Your task to perform on an android device: Add razer thresher to the cart on costco.com, then select checkout. Image 0: 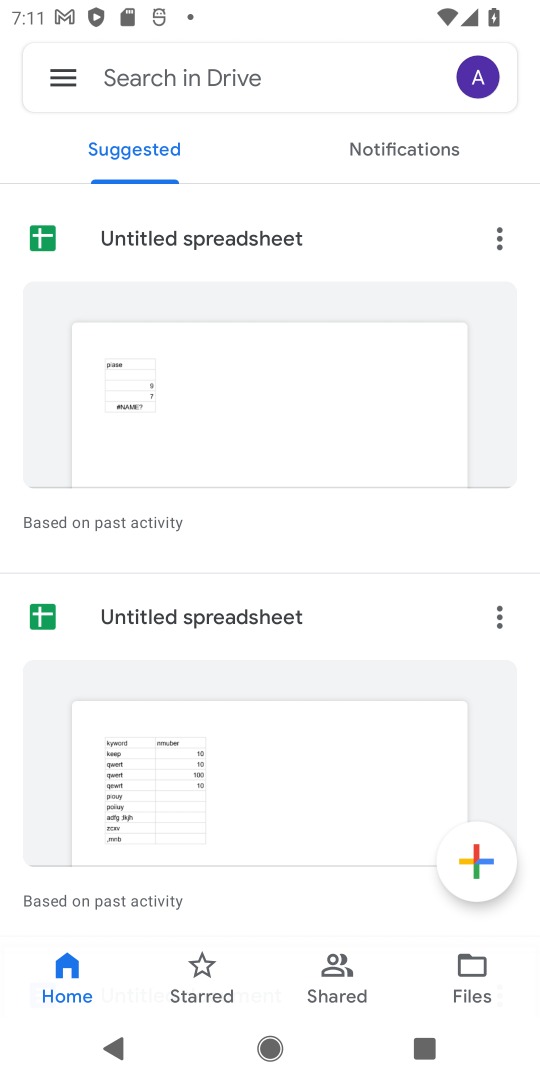
Step 0: press home button
Your task to perform on an android device: Add razer thresher to the cart on costco.com, then select checkout. Image 1: 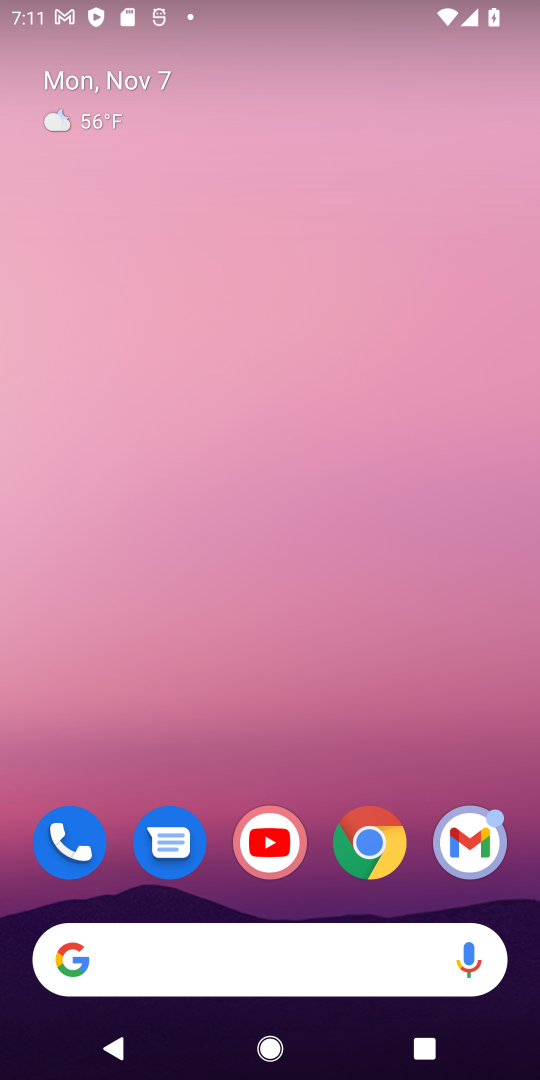
Step 1: click (370, 843)
Your task to perform on an android device: Add razer thresher to the cart on costco.com, then select checkout. Image 2: 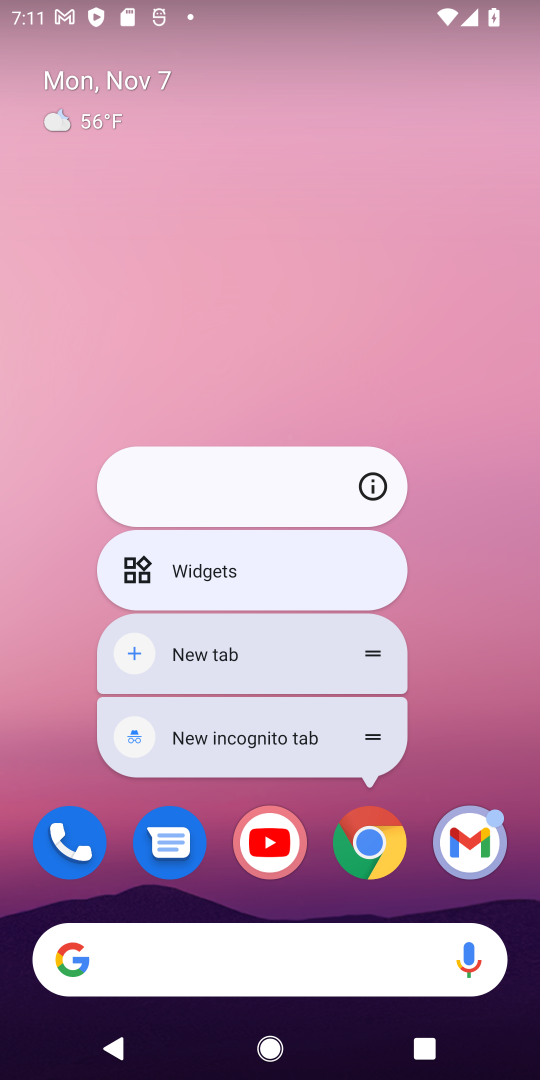
Step 2: click (373, 846)
Your task to perform on an android device: Add razer thresher to the cart on costco.com, then select checkout. Image 3: 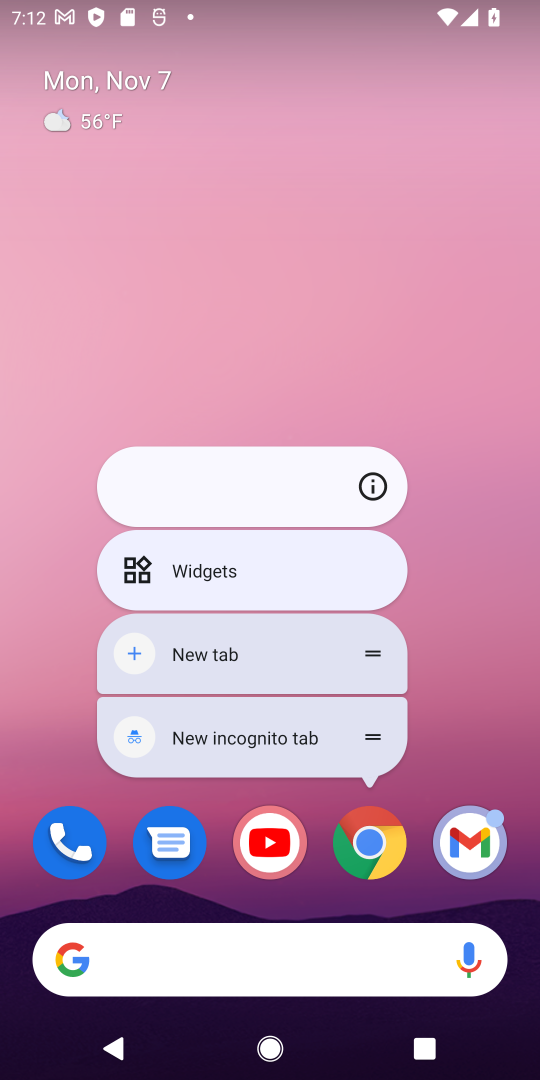
Step 3: click (370, 850)
Your task to perform on an android device: Add razer thresher to the cart on costco.com, then select checkout. Image 4: 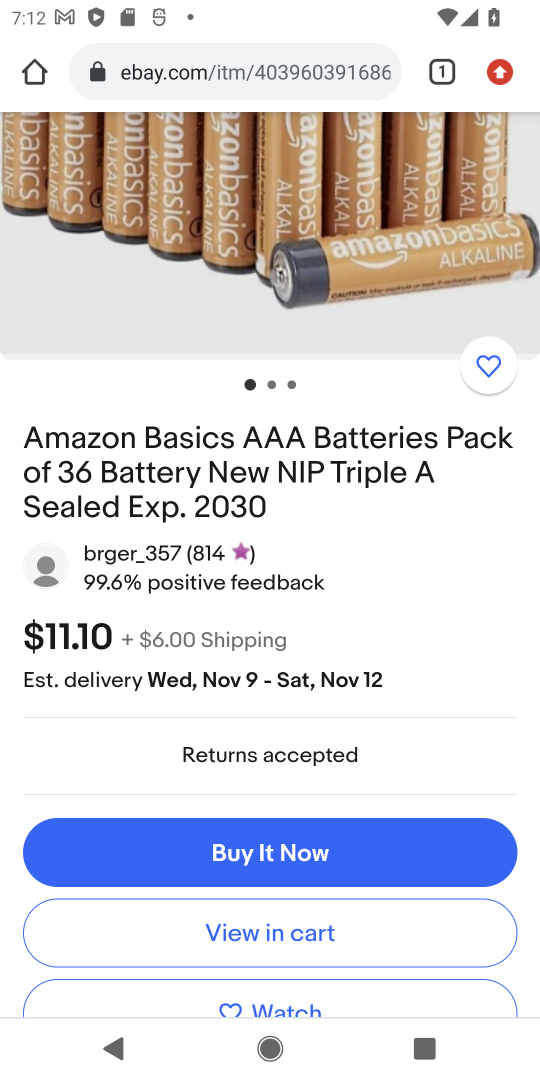
Step 4: click (321, 79)
Your task to perform on an android device: Add razer thresher to the cart on costco.com, then select checkout. Image 5: 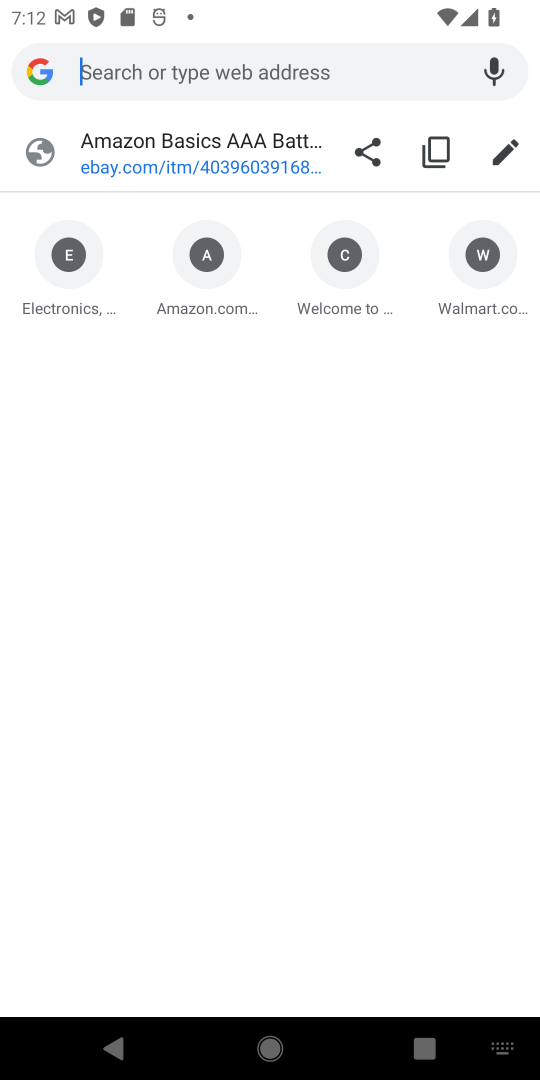
Step 5: click (345, 56)
Your task to perform on an android device: Add razer thresher to the cart on costco.com, then select checkout. Image 6: 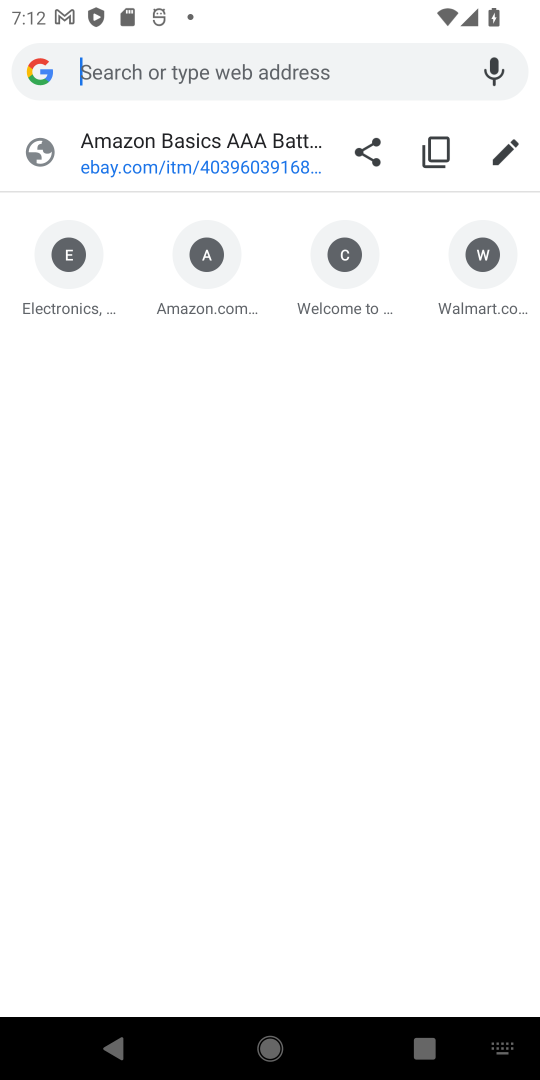
Step 6: type " costco"
Your task to perform on an android device: Add razer thresher to the cart on costco.com, then select checkout. Image 7: 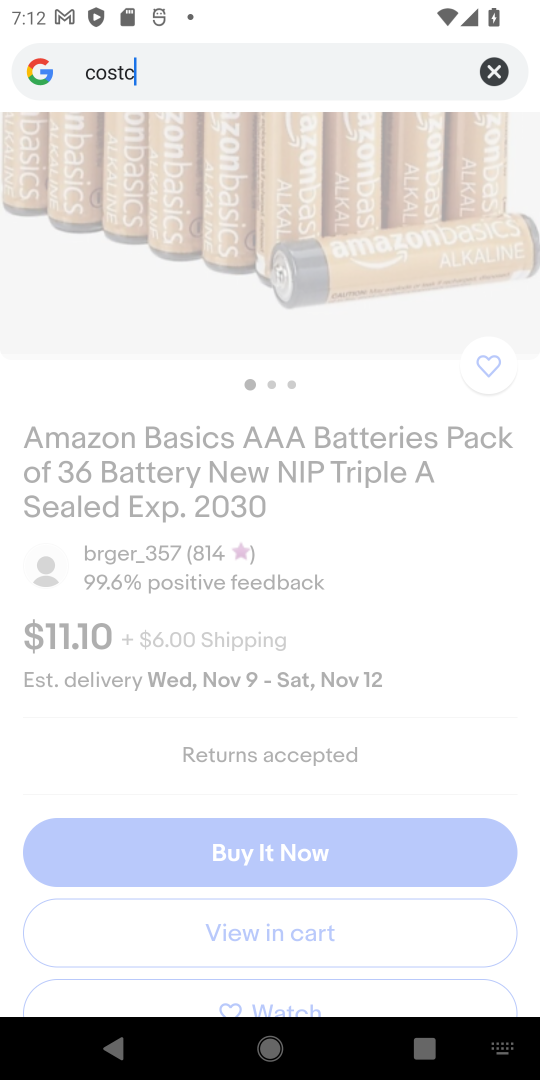
Step 7: press enter
Your task to perform on an android device: Add razer thresher to the cart on costco.com, then select checkout. Image 8: 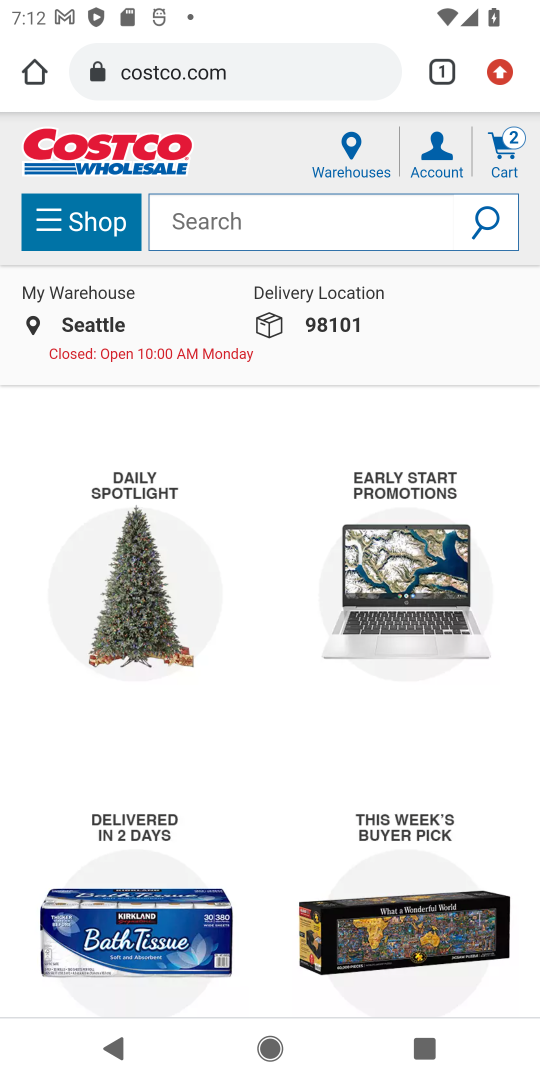
Step 8: click (316, 229)
Your task to perform on an android device: Add razer thresher to the cart on costco.com, then select checkout. Image 9: 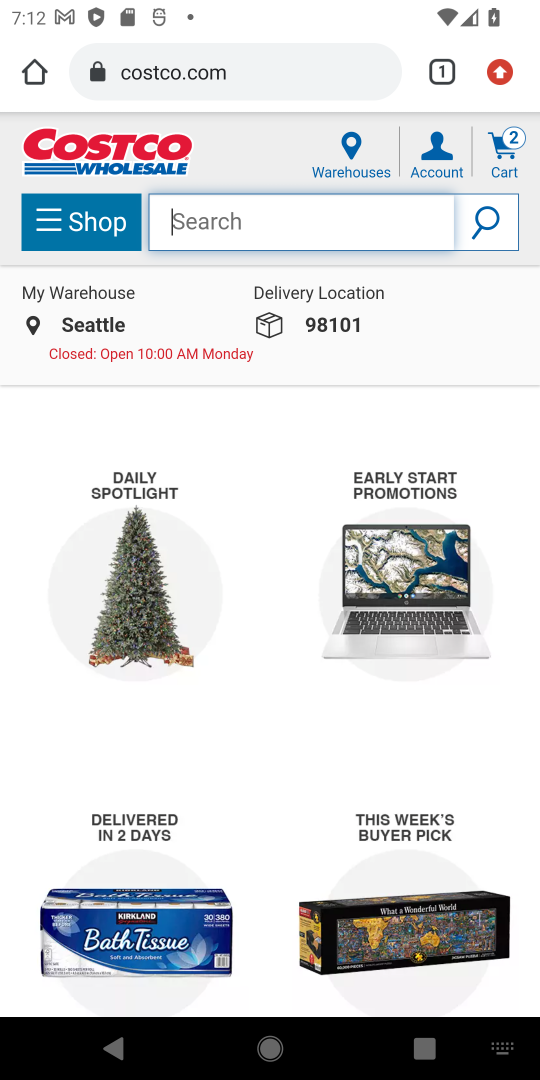
Step 9: press enter
Your task to perform on an android device: Add razer thresher to the cart on costco.com, then select checkout. Image 10: 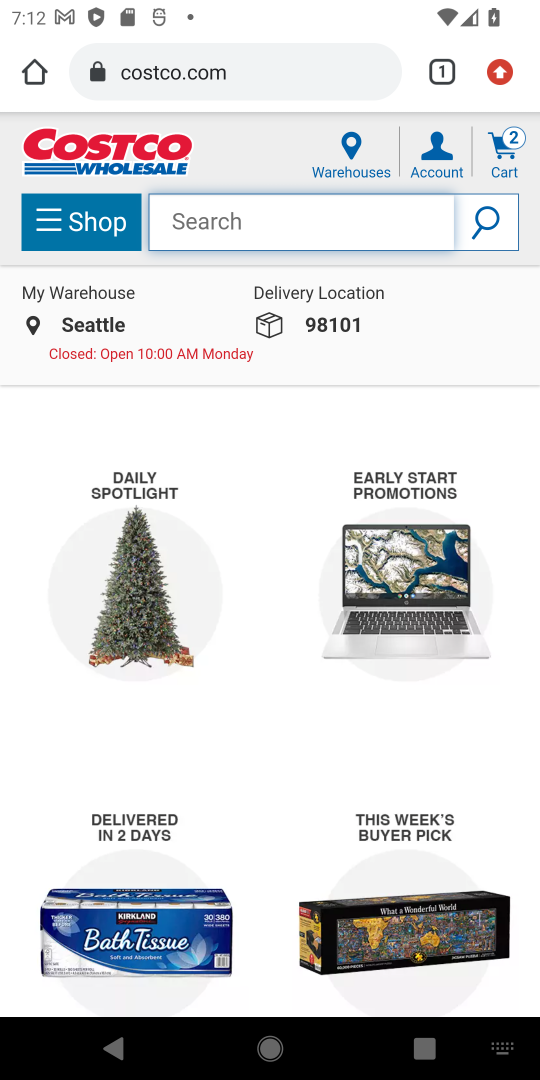
Step 10: type "razer thresher"
Your task to perform on an android device: Add razer thresher to the cart on costco.com, then select checkout. Image 11: 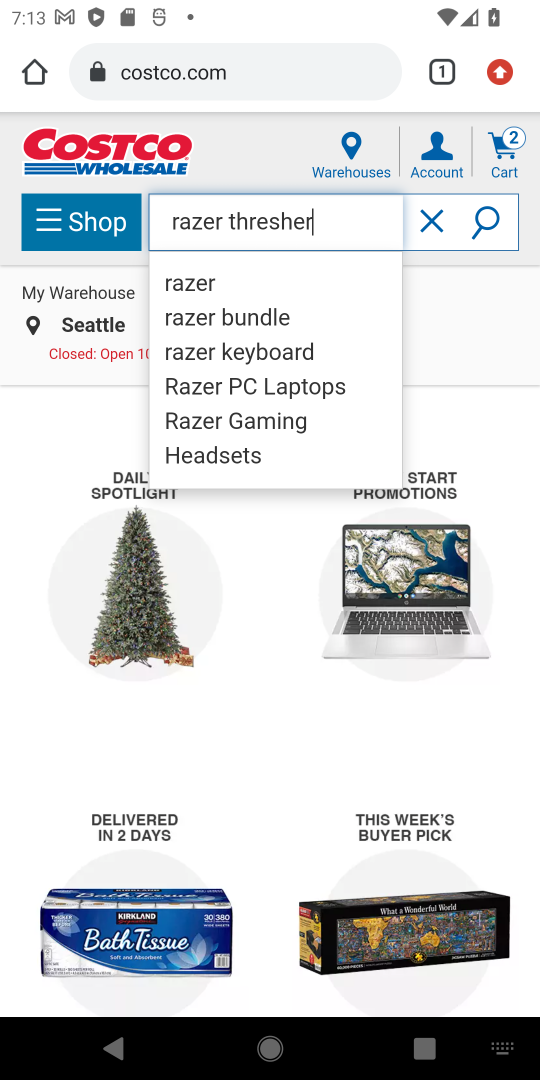
Step 11: press enter
Your task to perform on an android device: Add razer thresher to the cart on costco.com, then select checkout. Image 12: 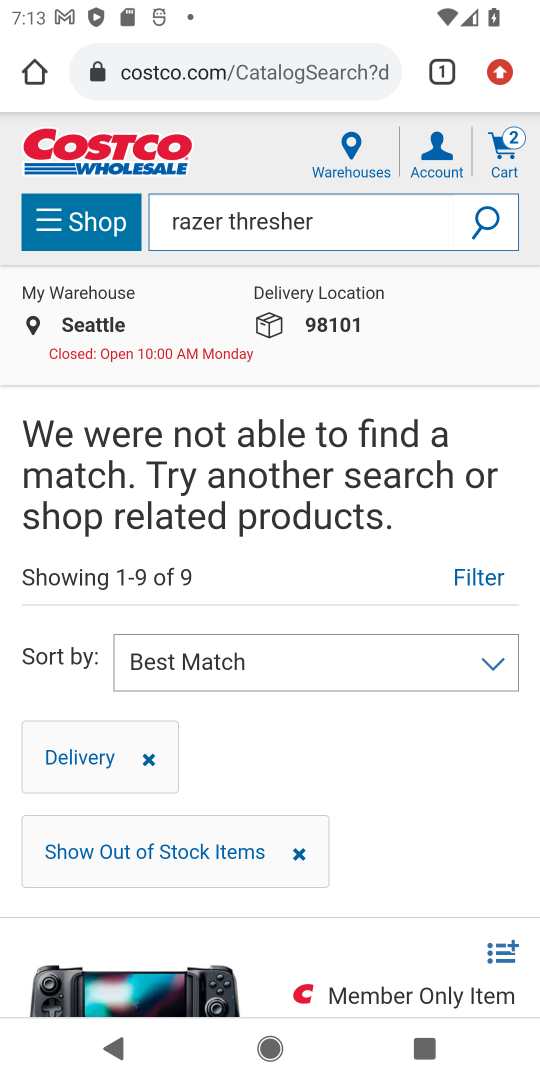
Step 12: task complete